Your task to perform on an android device: Open battery settings Image 0: 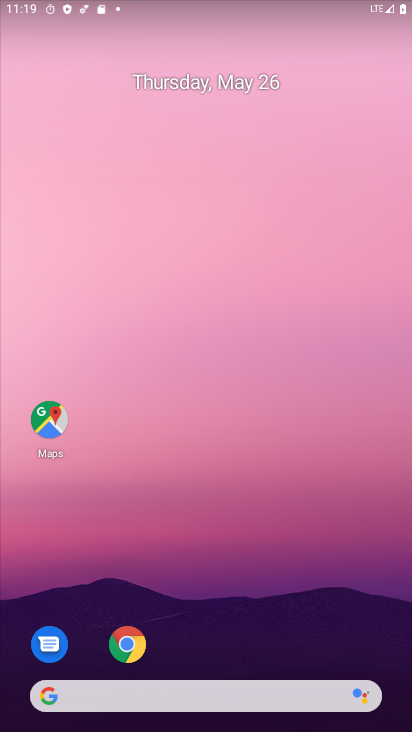
Step 0: drag from (132, 727) to (117, 117)
Your task to perform on an android device: Open battery settings Image 1: 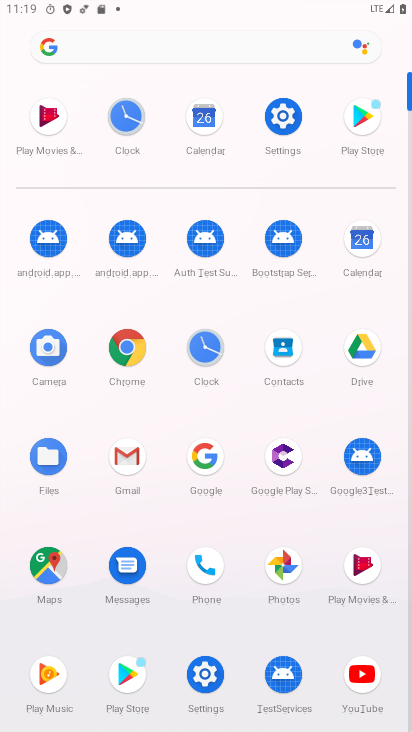
Step 1: click (279, 122)
Your task to perform on an android device: Open battery settings Image 2: 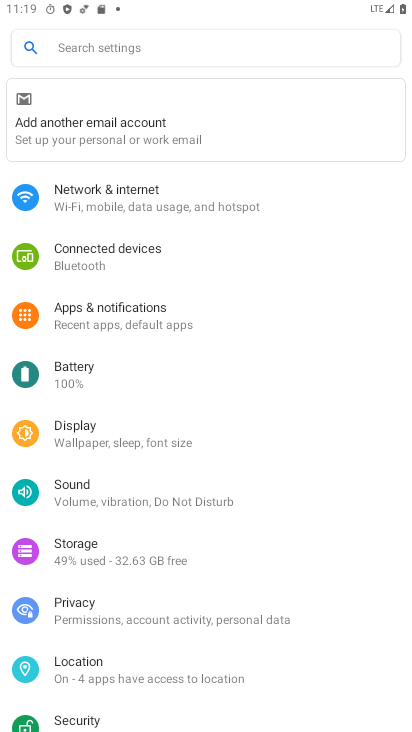
Step 2: click (91, 381)
Your task to perform on an android device: Open battery settings Image 3: 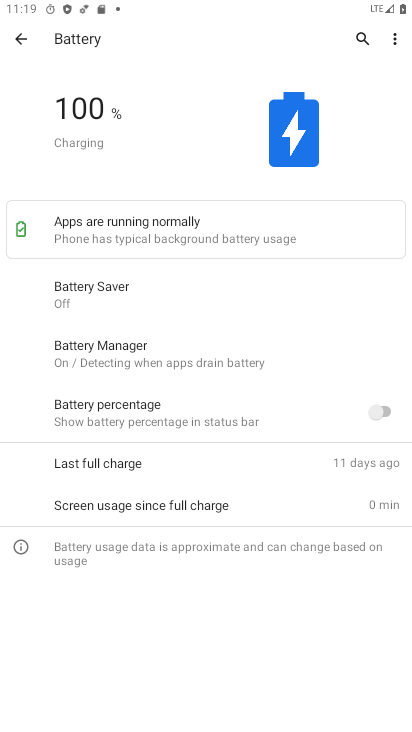
Step 3: task complete